Your task to perform on an android device: Go to battery settings Image 0: 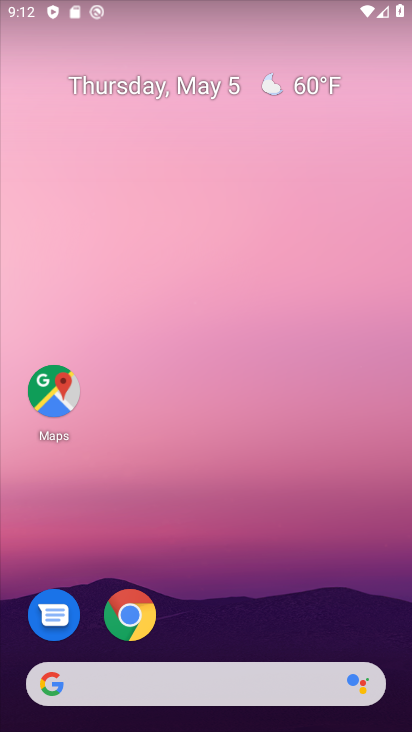
Step 0: press home button
Your task to perform on an android device: Go to battery settings Image 1: 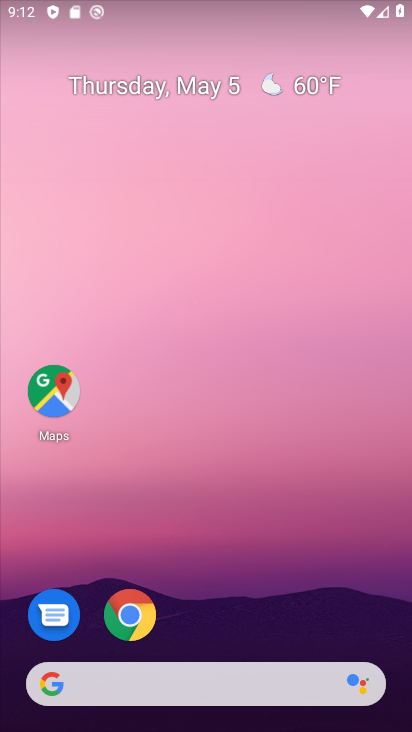
Step 1: drag from (215, 618) to (306, 166)
Your task to perform on an android device: Go to battery settings Image 2: 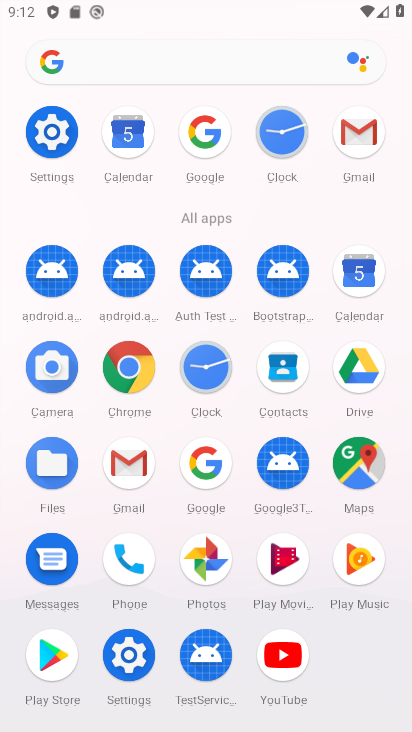
Step 2: click (198, 374)
Your task to perform on an android device: Go to battery settings Image 3: 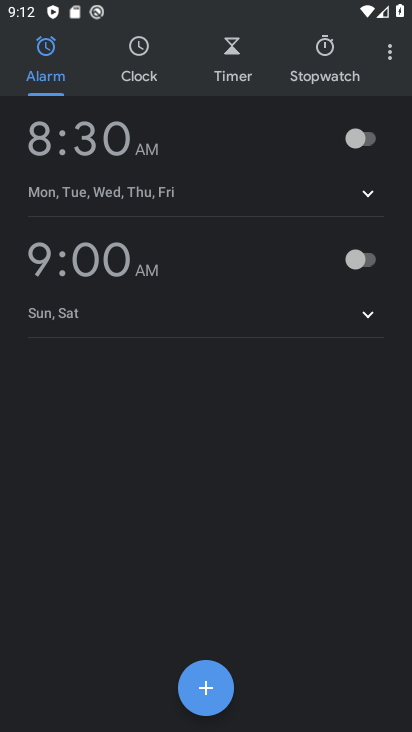
Step 3: click (313, 67)
Your task to perform on an android device: Go to battery settings Image 4: 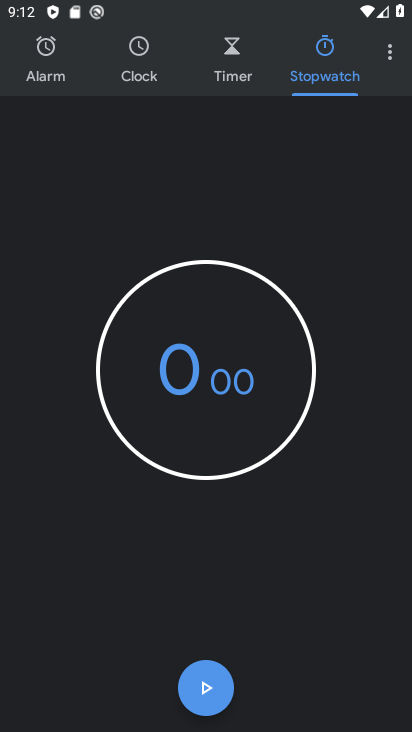
Step 4: drag from (206, 691) to (411, 590)
Your task to perform on an android device: Go to battery settings Image 5: 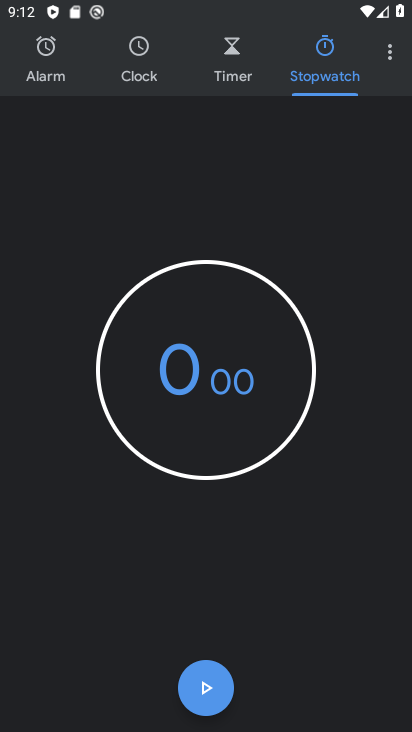
Step 5: press home button
Your task to perform on an android device: Go to battery settings Image 6: 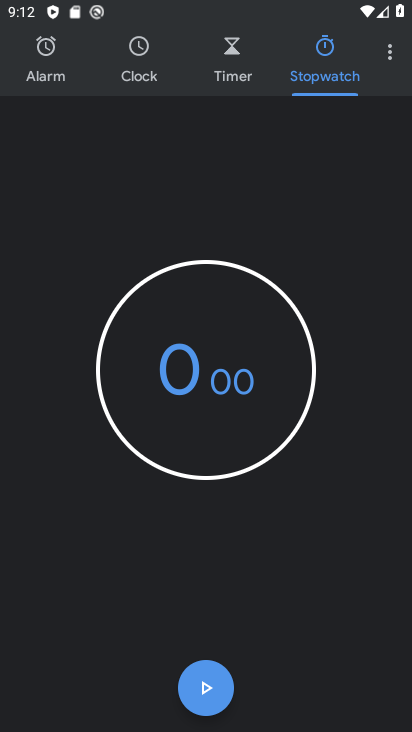
Step 6: drag from (411, 590) to (404, 516)
Your task to perform on an android device: Go to battery settings Image 7: 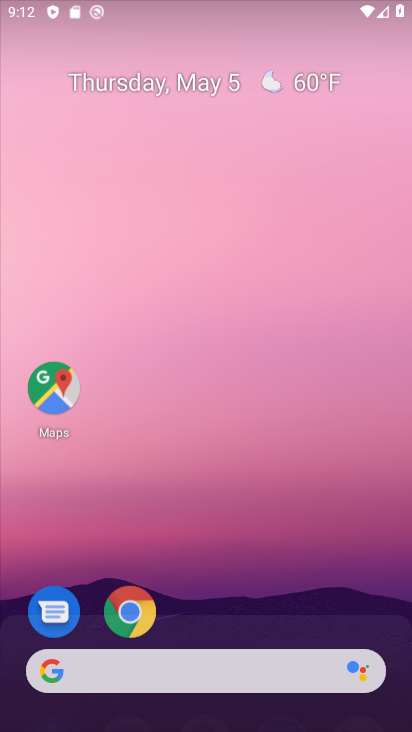
Step 7: drag from (208, 605) to (325, 122)
Your task to perform on an android device: Go to battery settings Image 8: 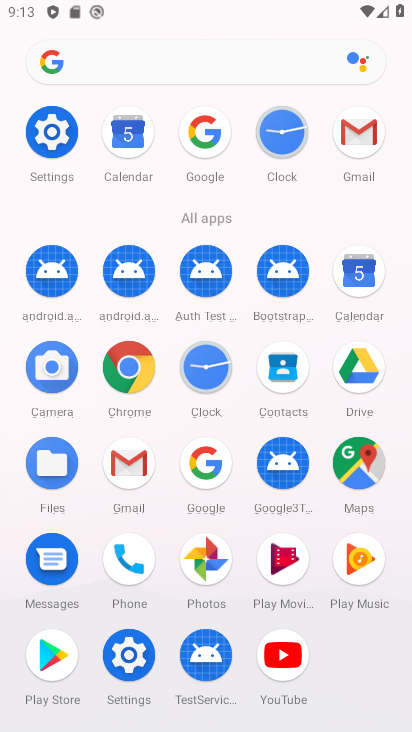
Step 8: click (53, 126)
Your task to perform on an android device: Go to battery settings Image 9: 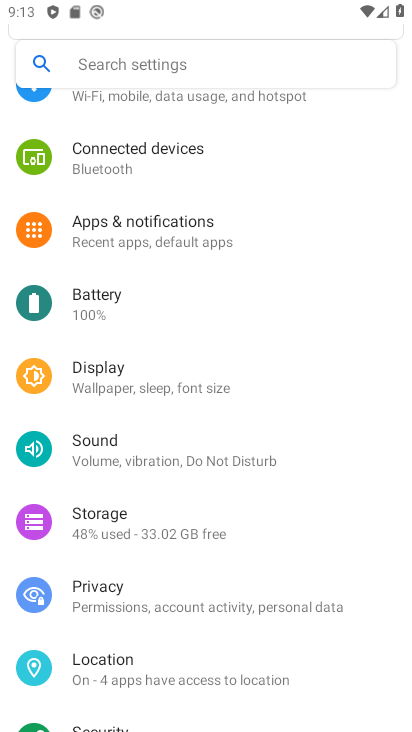
Step 9: click (140, 308)
Your task to perform on an android device: Go to battery settings Image 10: 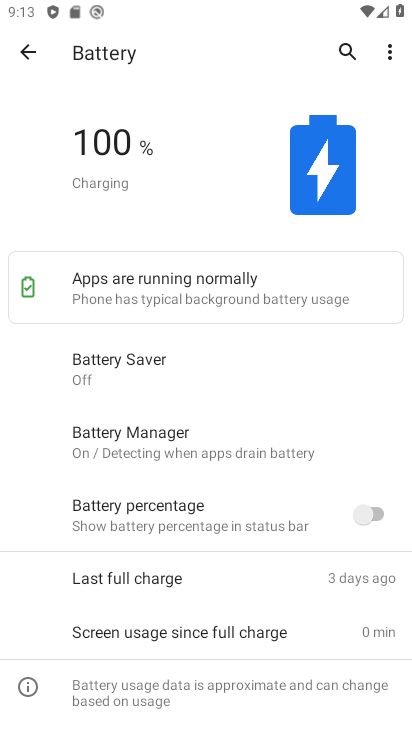
Step 10: task complete